Your task to perform on an android device: Go to Reddit.com Image 0: 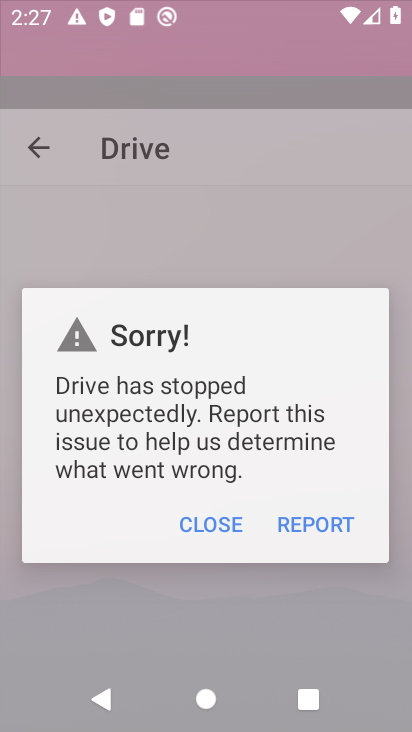
Step 0: click (222, 382)
Your task to perform on an android device: Go to Reddit.com Image 1: 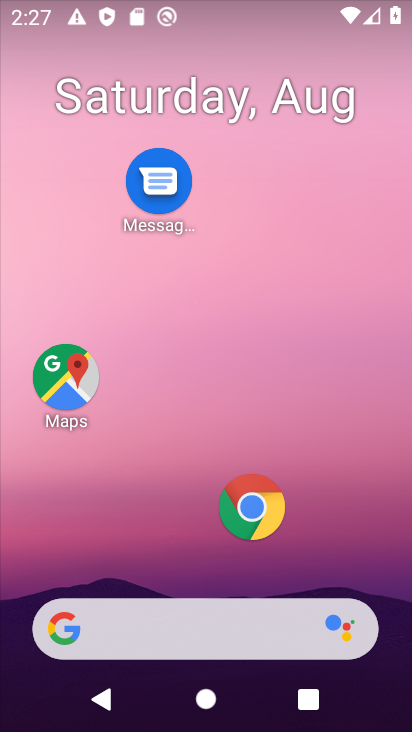
Step 1: click (67, 386)
Your task to perform on an android device: Go to Reddit.com Image 2: 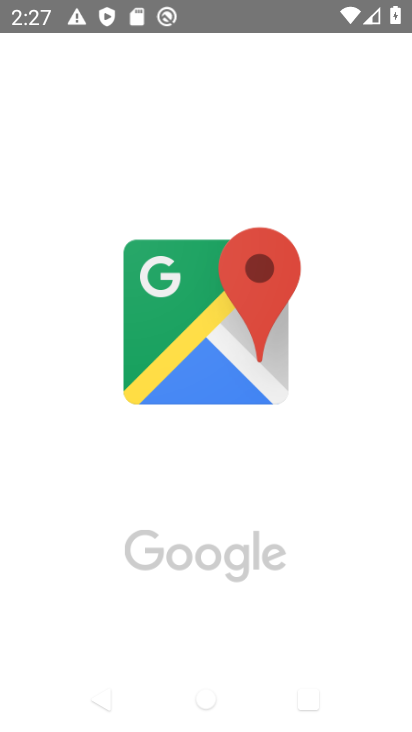
Step 2: press home button
Your task to perform on an android device: Go to Reddit.com Image 3: 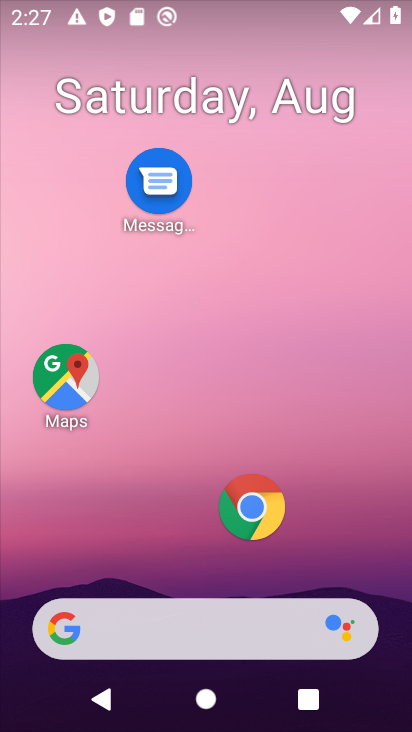
Step 3: click (254, 515)
Your task to perform on an android device: Go to Reddit.com Image 4: 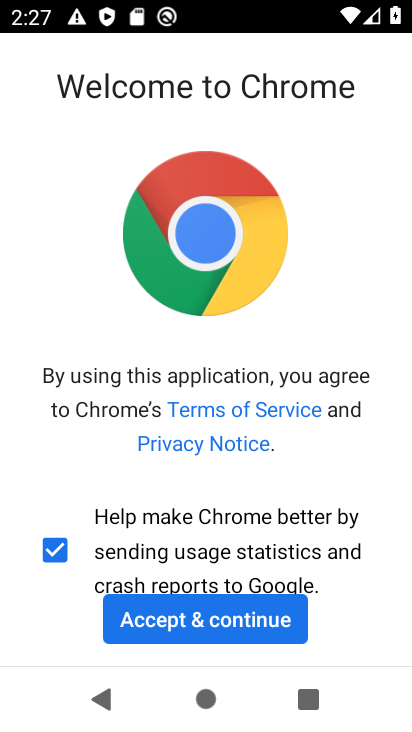
Step 4: click (214, 607)
Your task to perform on an android device: Go to Reddit.com Image 5: 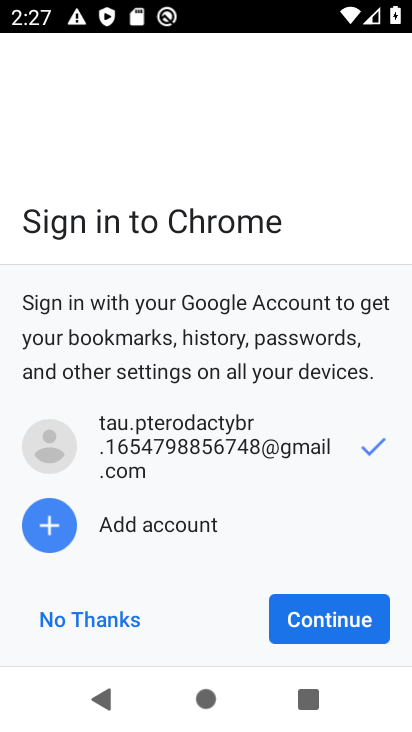
Step 5: click (319, 613)
Your task to perform on an android device: Go to Reddit.com Image 6: 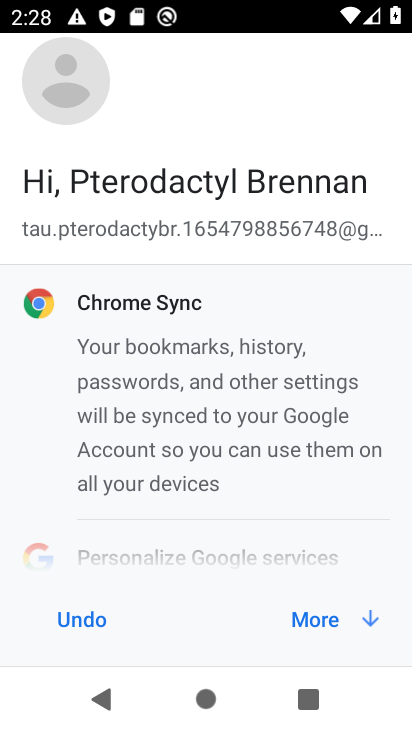
Step 6: click (344, 622)
Your task to perform on an android device: Go to Reddit.com Image 7: 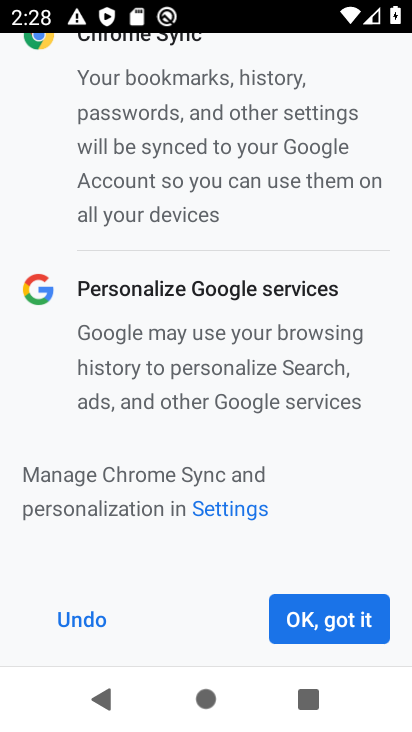
Step 7: click (344, 622)
Your task to perform on an android device: Go to Reddit.com Image 8: 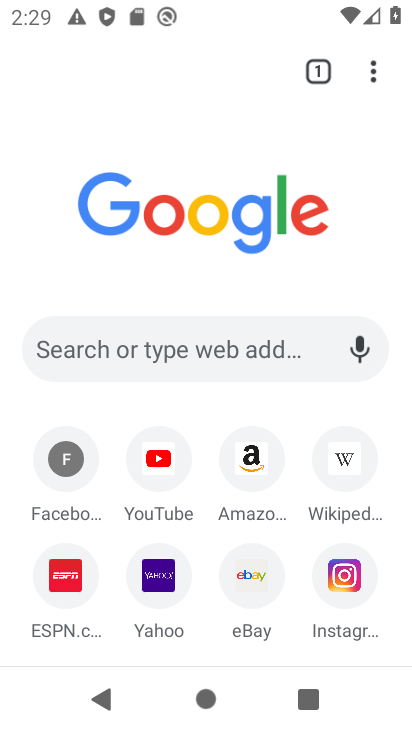
Step 8: click (197, 347)
Your task to perform on an android device: Go to Reddit.com Image 9: 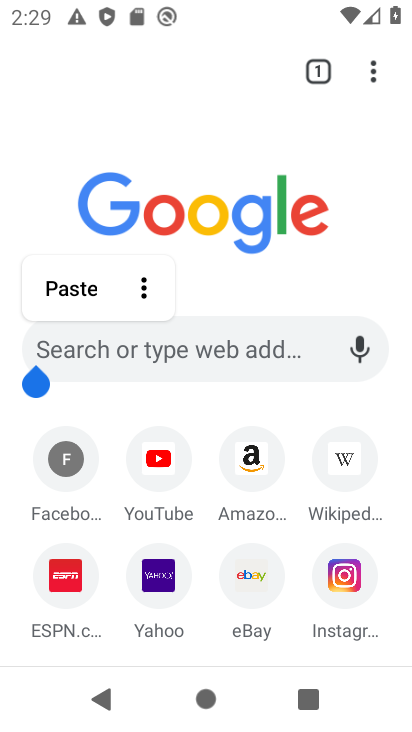
Step 9: click (143, 358)
Your task to perform on an android device: Go to Reddit.com Image 10: 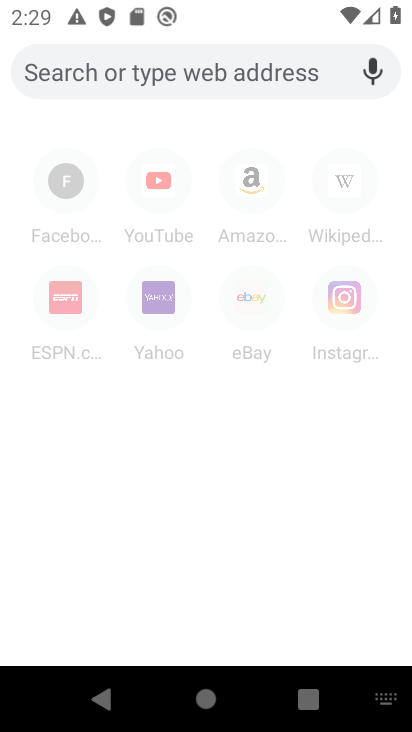
Step 10: type "Reddit.com"
Your task to perform on an android device: Go to Reddit.com Image 11: 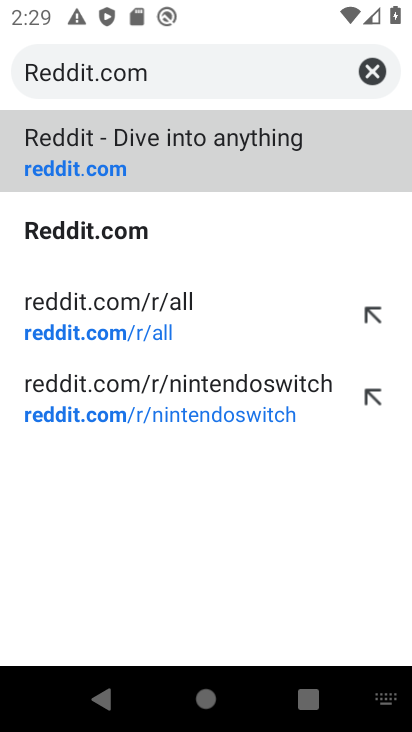
Step 11: click (186, 156)
Your task to perform on an android device: Go to Reddit.com Image 12: 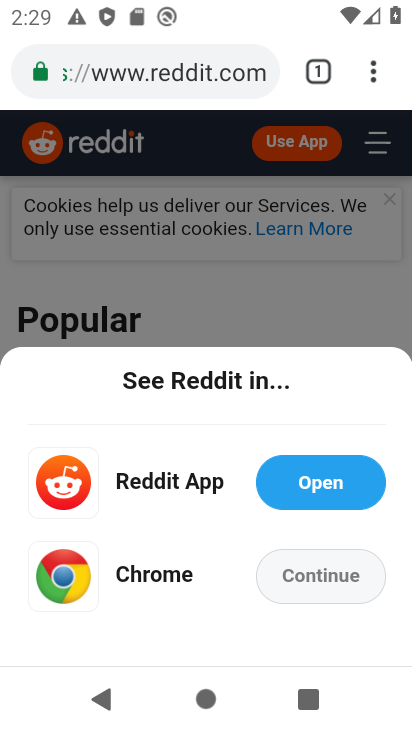
Step 12: task complete